Your task to perform on an android device: turn on javascript in the chrome app Image 0: 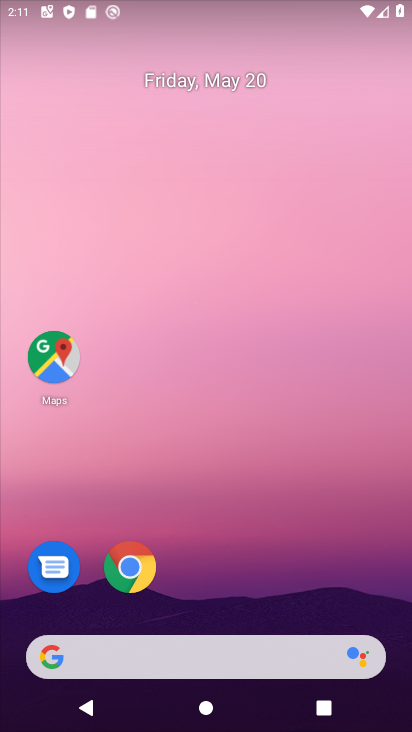
Step 0: drag from (276, 530) to (269, 36)
Your task to perform on an android device: turn on javascript in the chrome app Image 1: 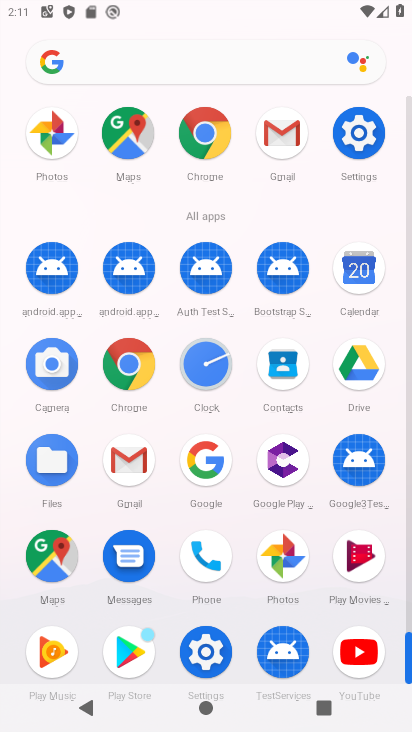
Step 1: drag from (3, 563) to (3, 251)
Your task to perform on an android device: turn on javascript in the chrome app Image 2: 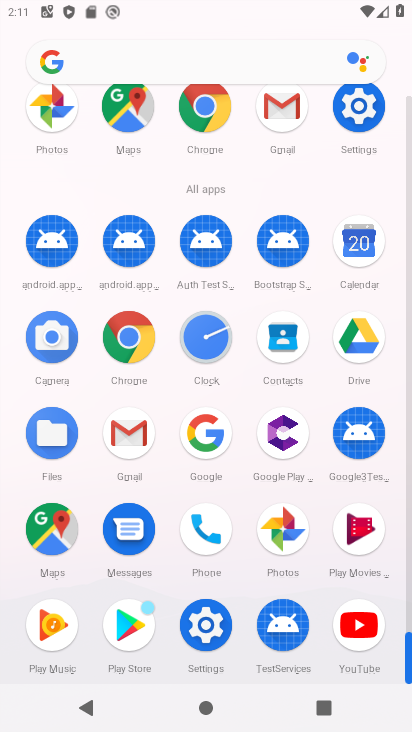
Step 2: drag from (3, 489) to (14, 129)
Your task to perform on an android device: turn on javascript in the chrome app Image 3: 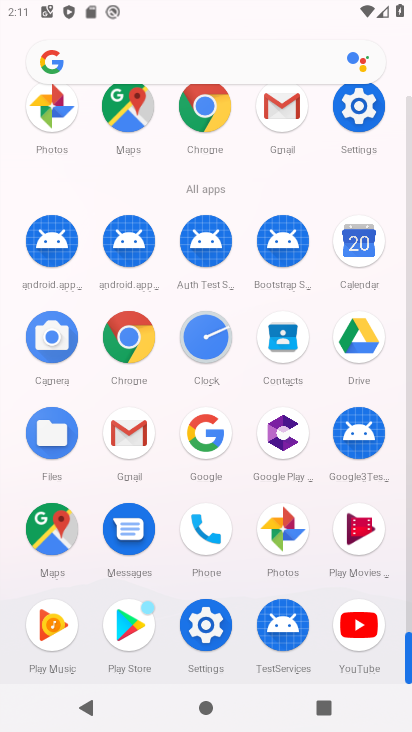
Step 3: drag from (10, 541) to (9, 276)
Your task to perform on an android device: turn on javascript in the chrome app Image 4: 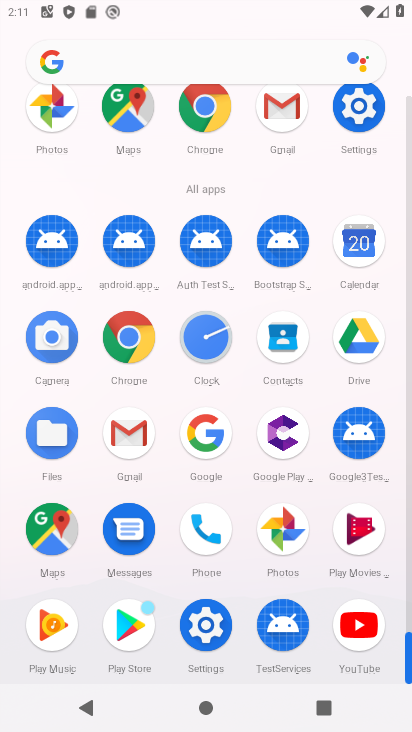
Step 4: click (120, 335)
Your task to perform on an android device: turn on javascript in the chrome app Image 5: 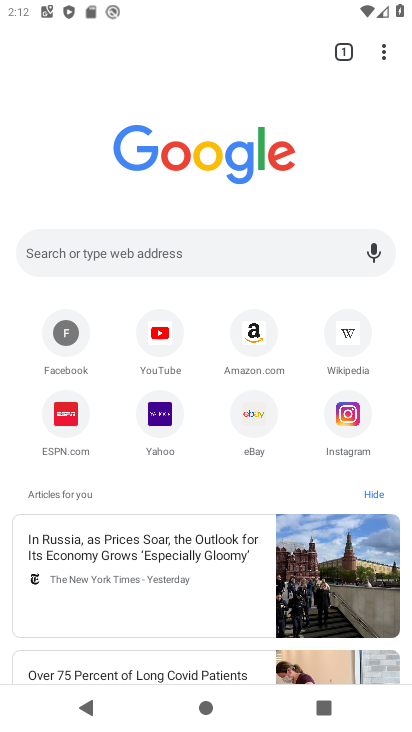
Step 5: drag from (379, 49) to (206, 433)
Your task to perform on an android device: turn on javascript in the chrome app Image 6: 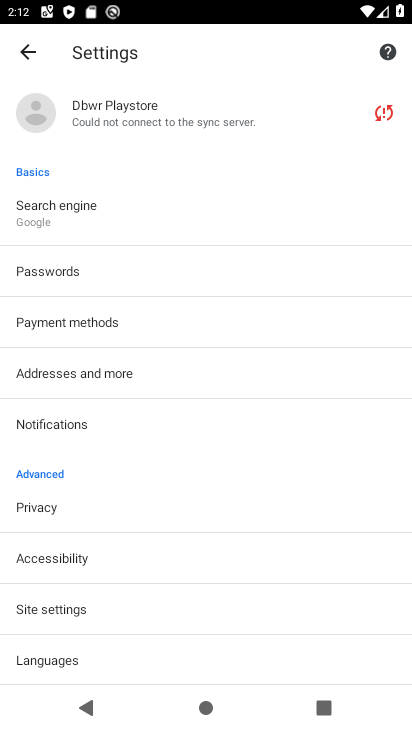
Step 6: drag from (192, 548) to (231, 189)
Your task to perform on an android device: turn on javascript in the chrome app Image 7: 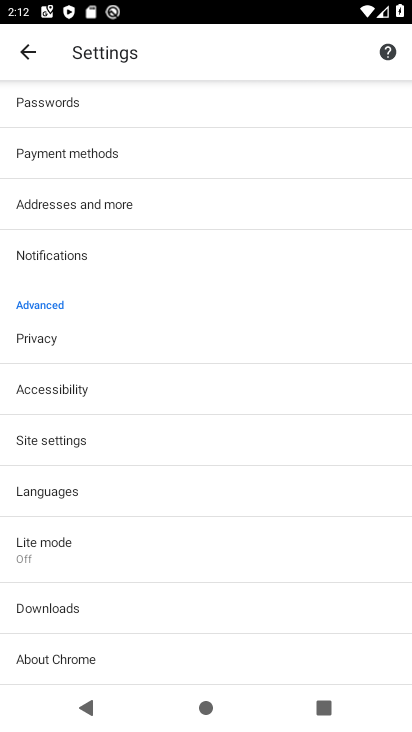
Step 7: click (113, 440)
Your task to perform on an android device: turn on javascript in the chrome app Image 8: 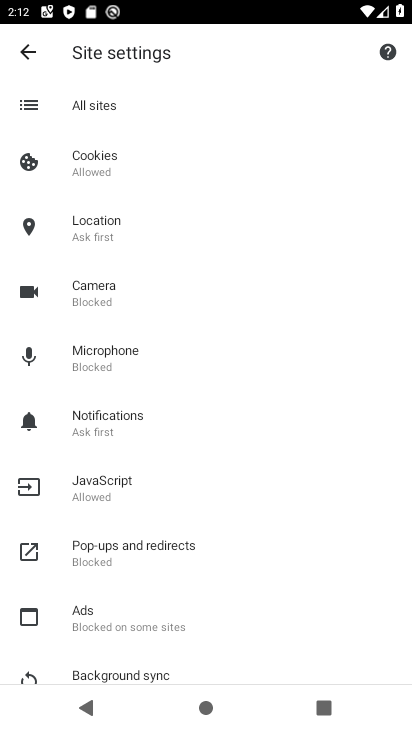
Step 8: task complete